Your task to perform on an android device: open app "LiveIn - Share Your Moment" Image 0: 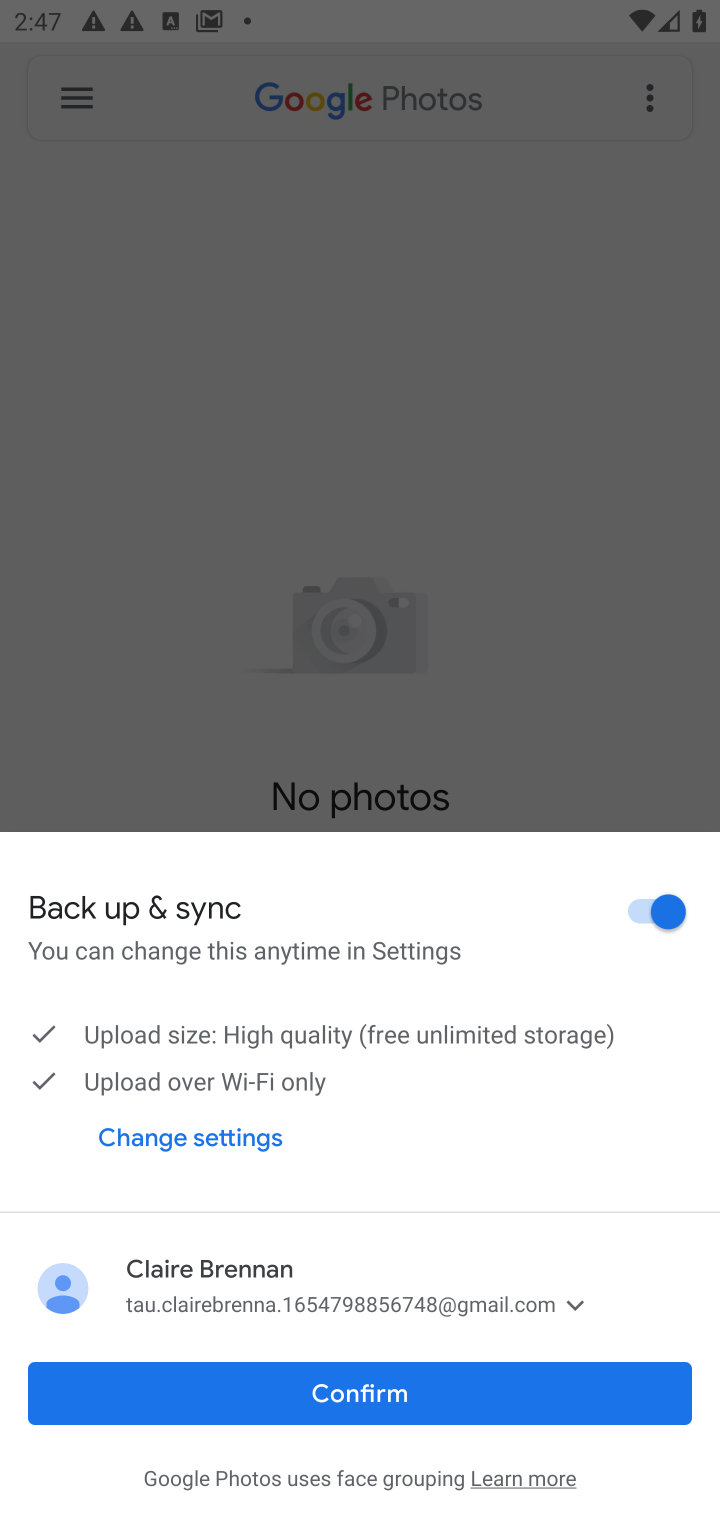
Step 0: press home button
Your task to perform on an android device: open app "LiveIn - Share Your Moment" Image 1: 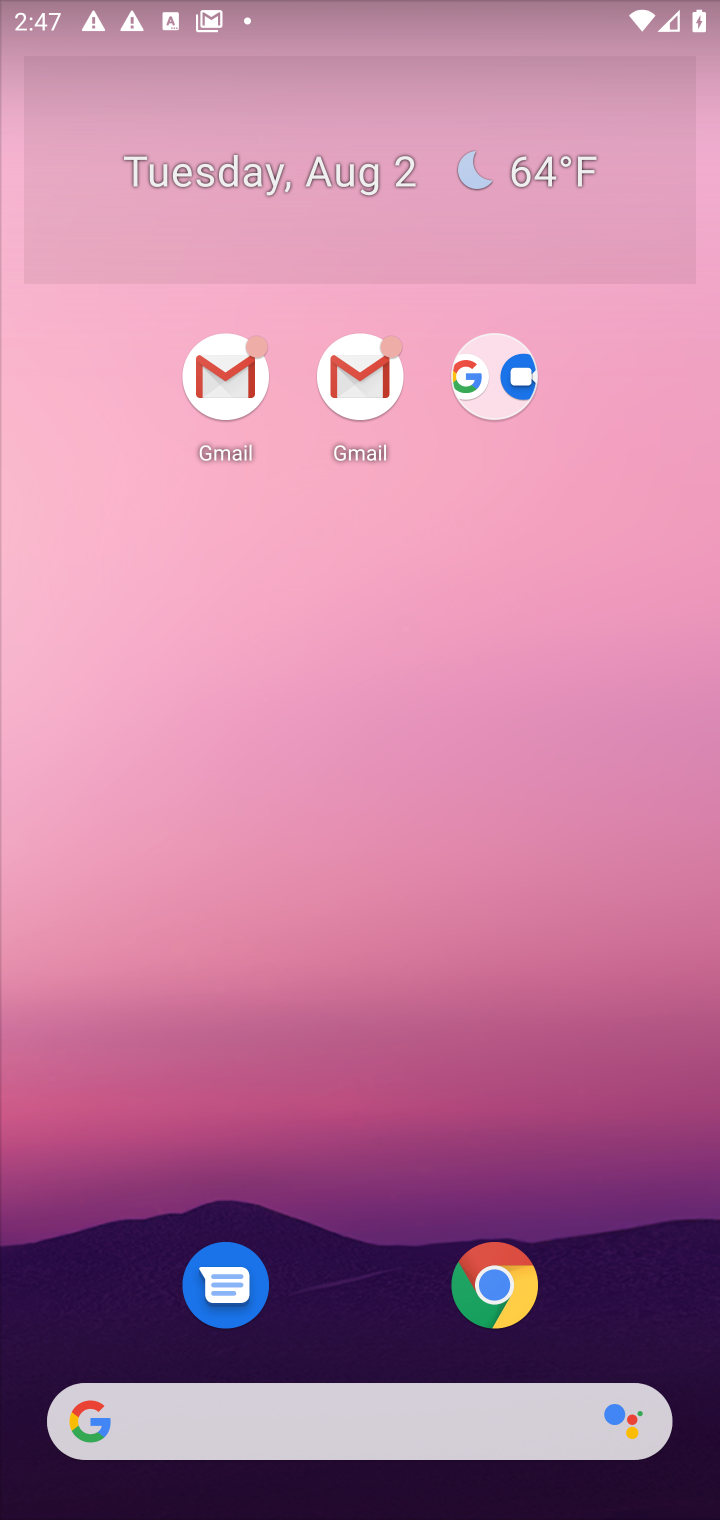
Step 1: drag from (333, 1385) to (341, 112)
Your task to perform on an android device: open app "LiveIn - Share Your Moment" Image 2: 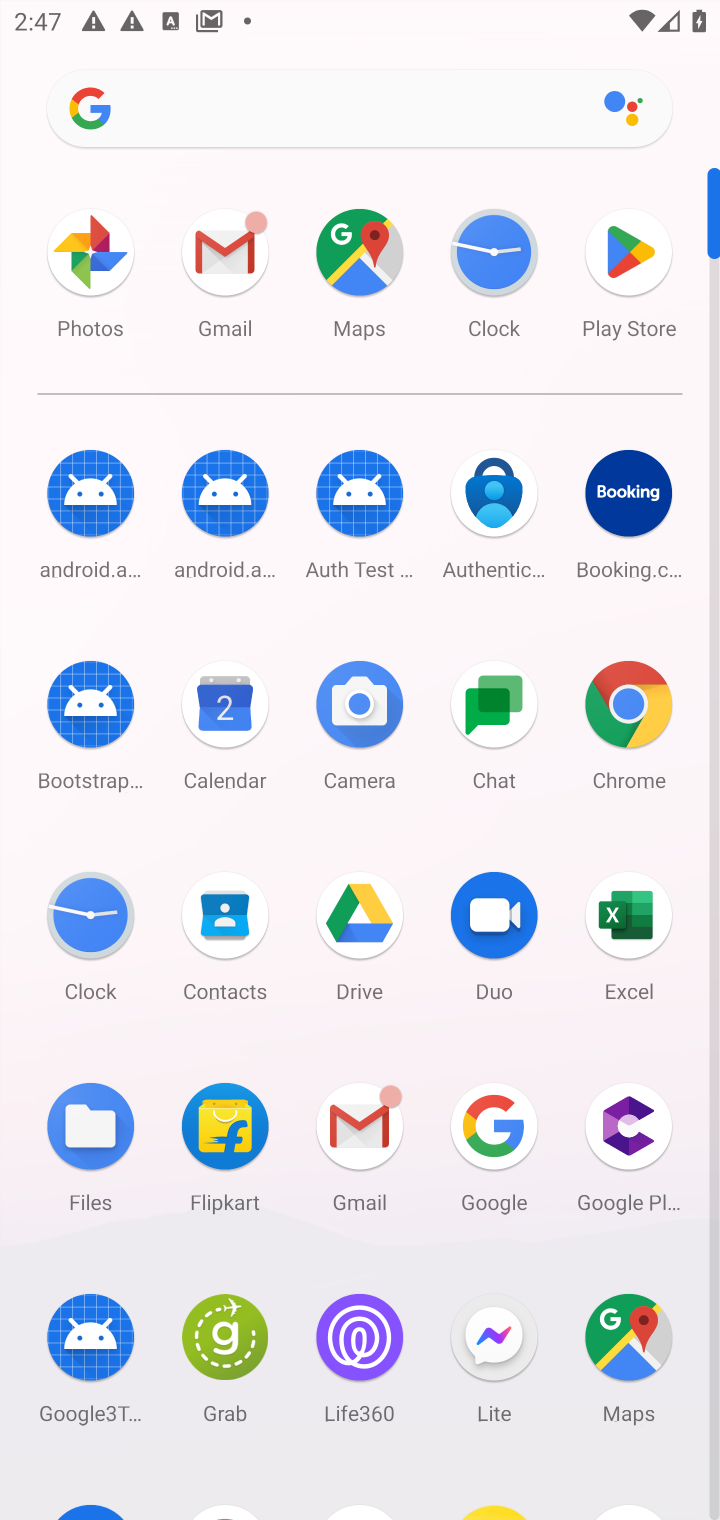
Step 2: click (617, 242)
Your task to perform on an android device: open app "LiveIn - Share Your Moment" Image 3: 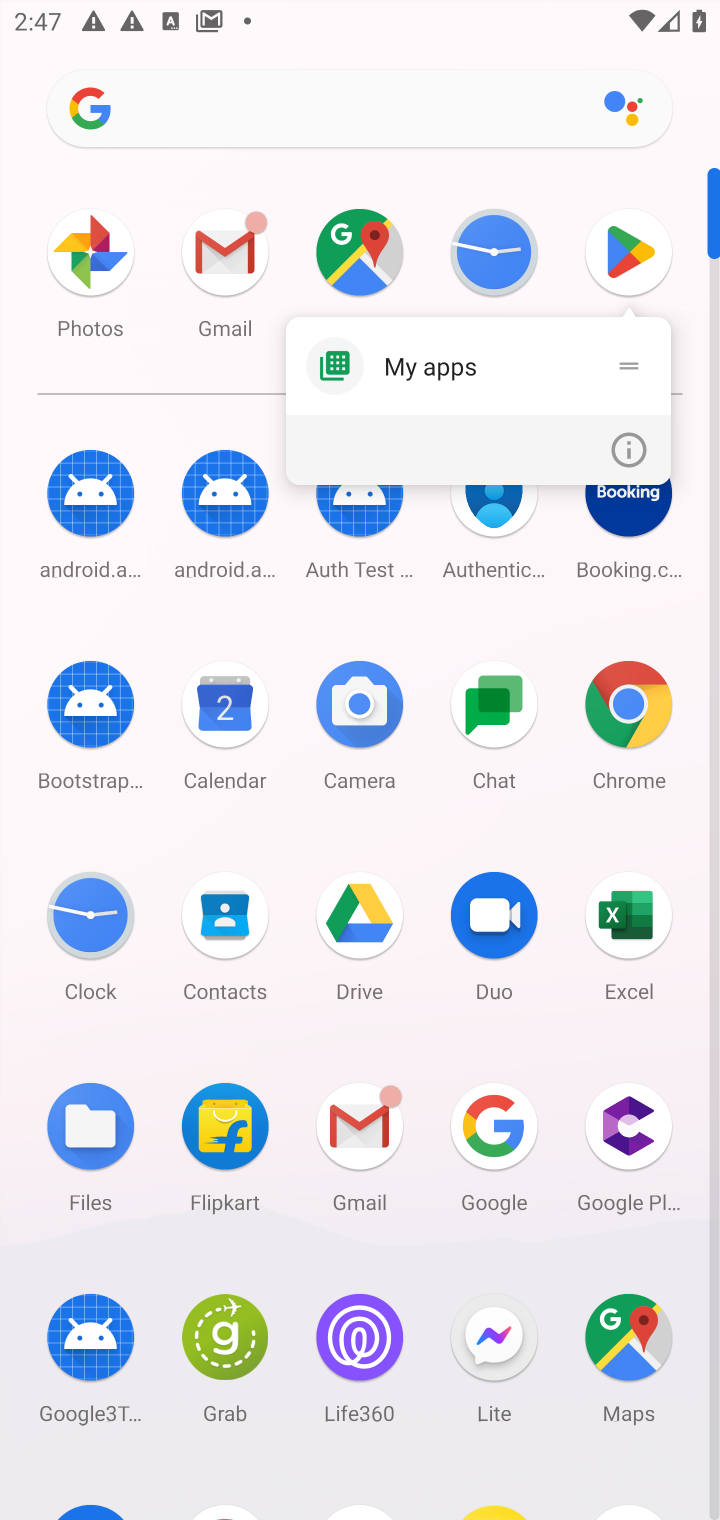
Step 3: click (613, 239)
Your task to perform on an android device: open app "LiveIn - Share Your Moment" Image 4: 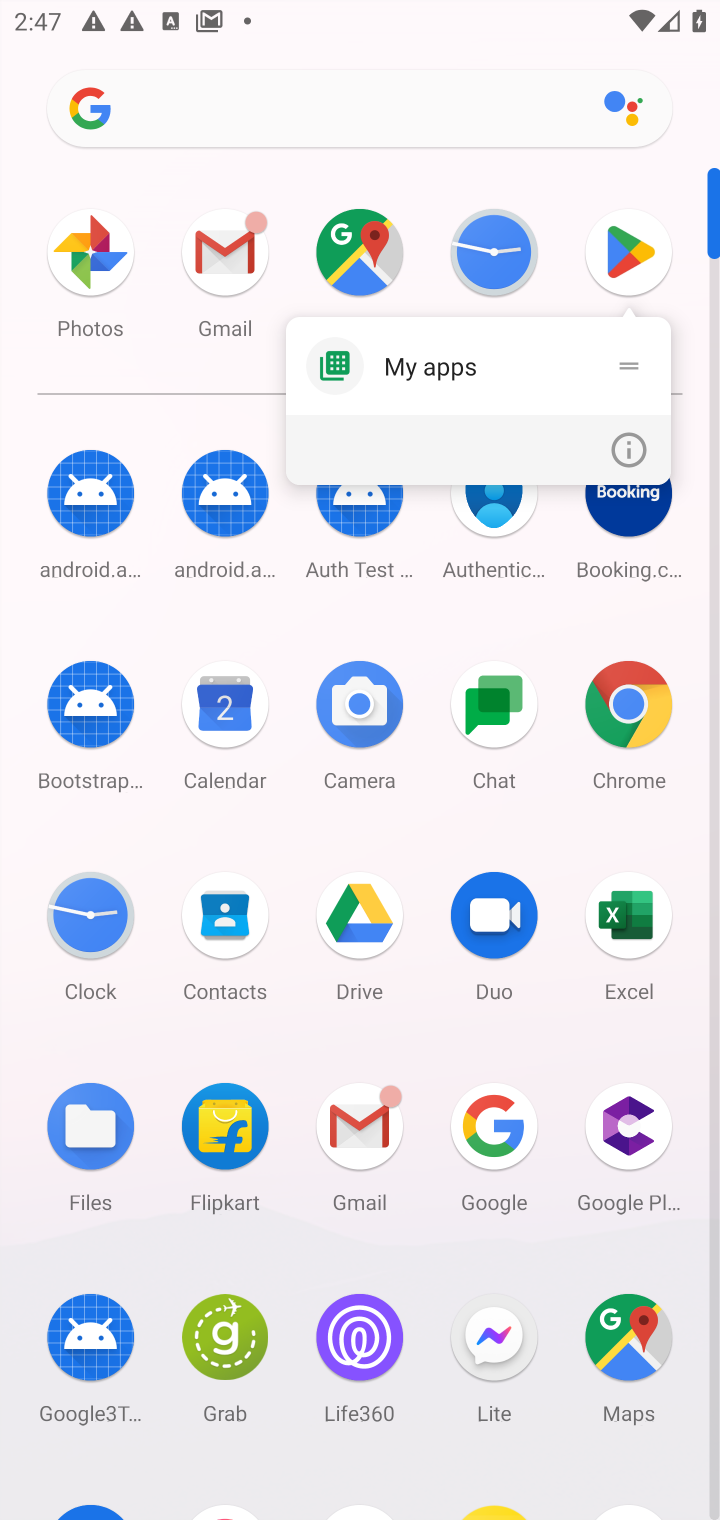
Step 4: drag from (275, 938) to (298, 505)
Your task to perform on an android device: open app "LiveIn - Share Your Moment" Image 5: 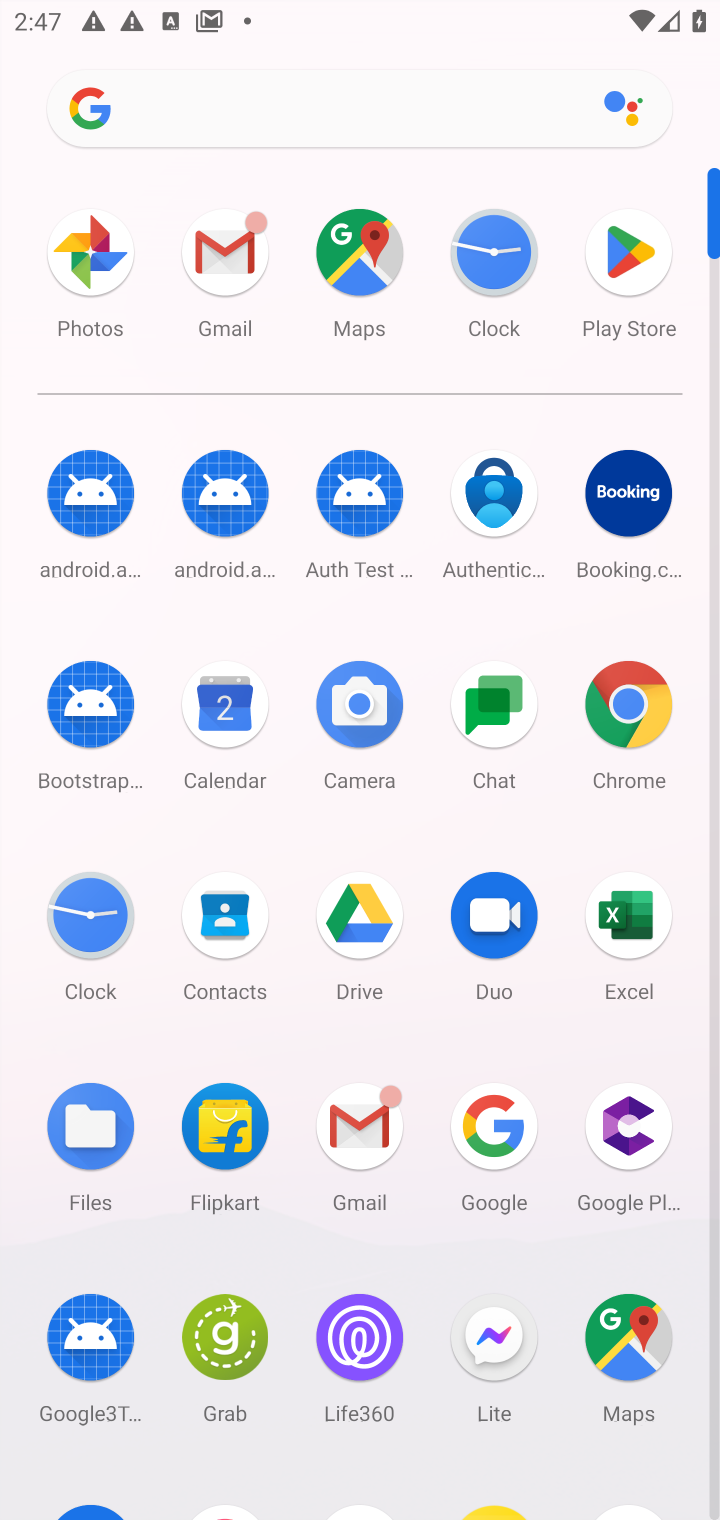
Step 5: drag from (278, 1229) to (309, 530)
Your task to perform on an android device: open app "LiveIn - Share Your Moment" Image 6: 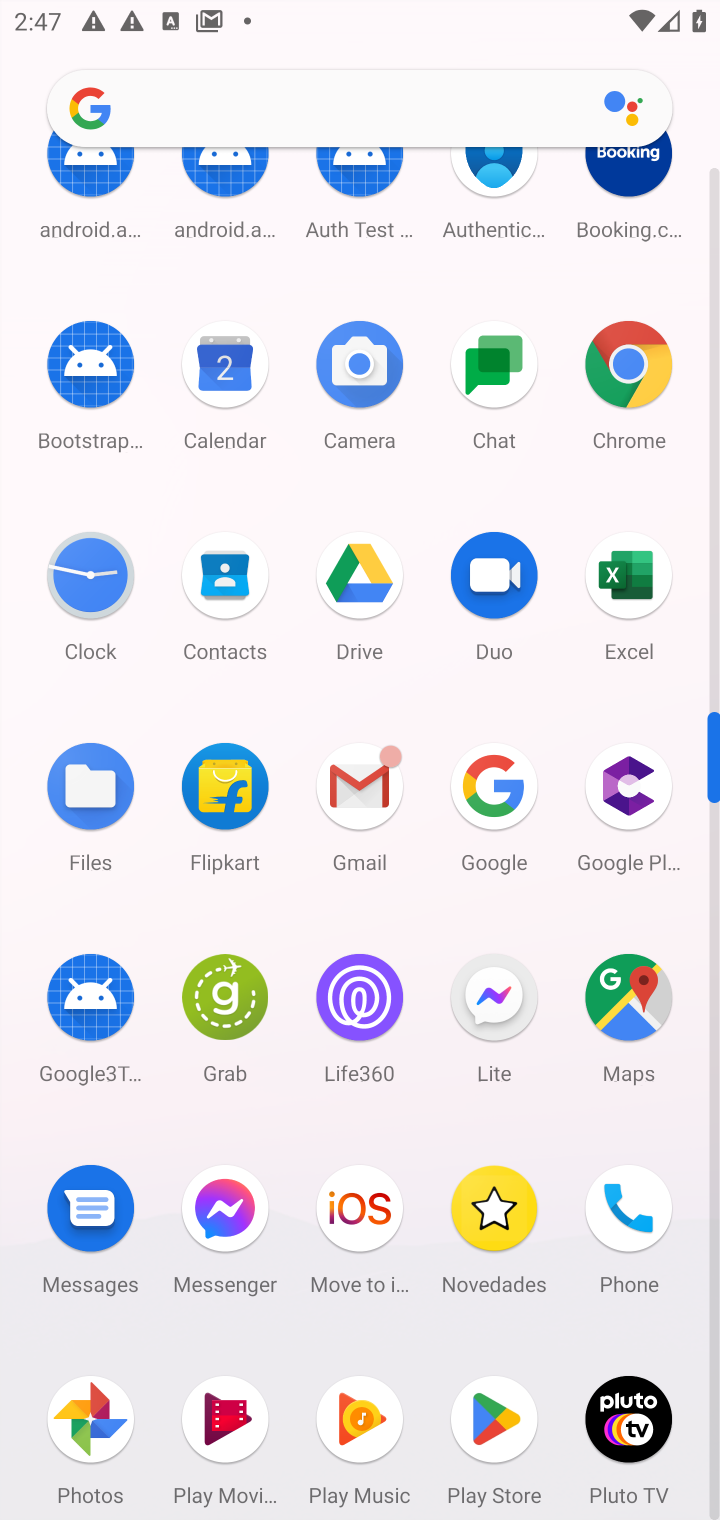
Step 6: click (497, 1405)
Your task to perform on an android device: open app "LiveIn - Share Your Moment" Image 7: 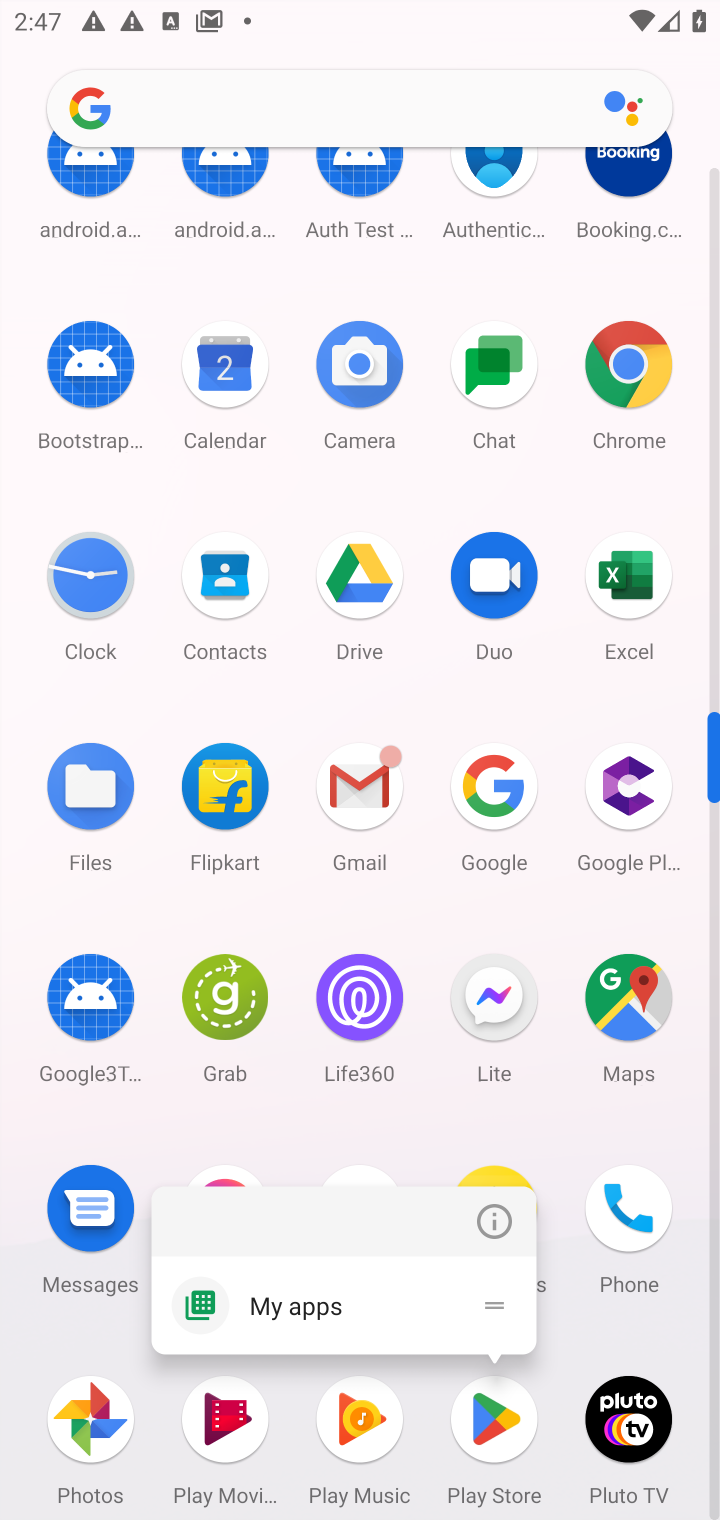
Step 7: click (481, 1416)
Your task to perform on an android device: open app "LiveIn - Share Your Moment" Image 8: 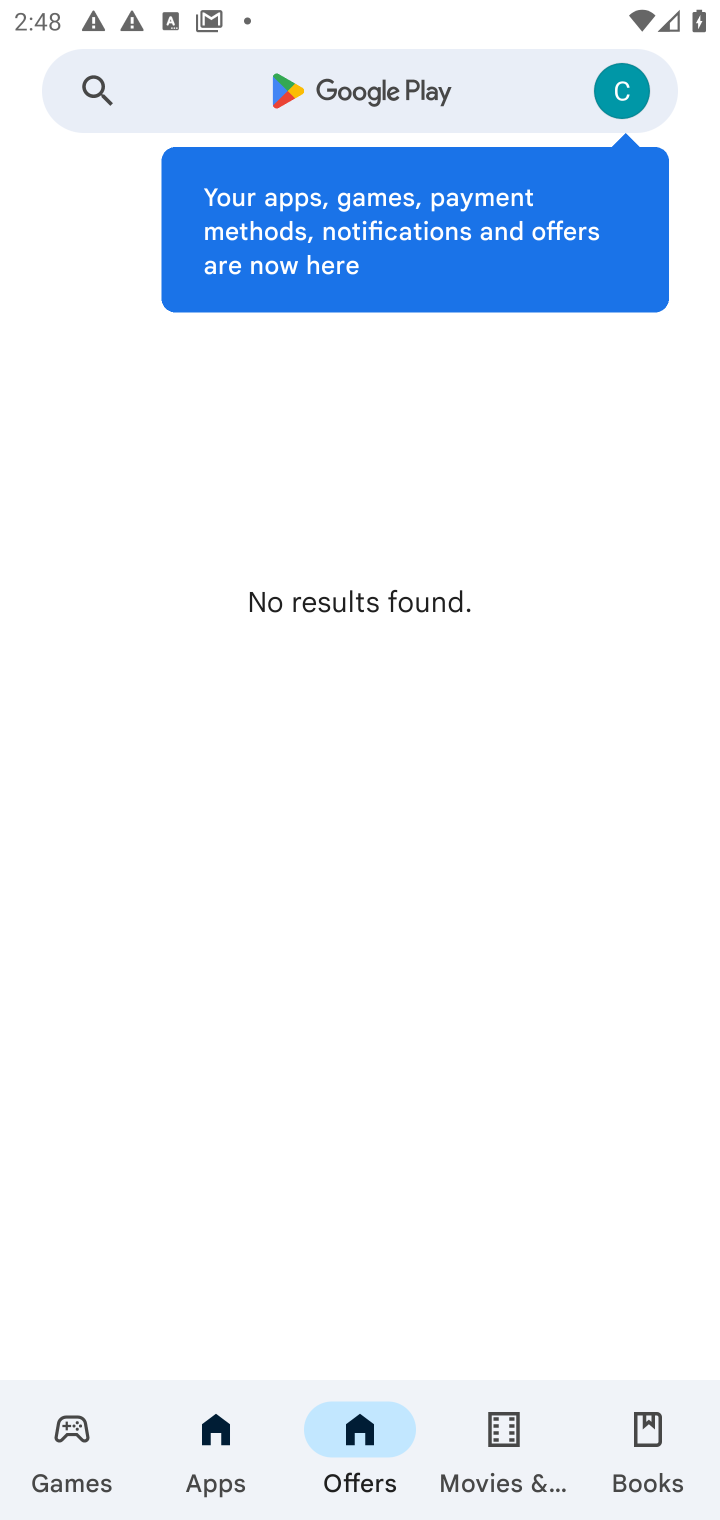
Step 8: click (471, 69)
Your task to perform on an android device: open app "LiveIn - Share Your Moment" Image 9: 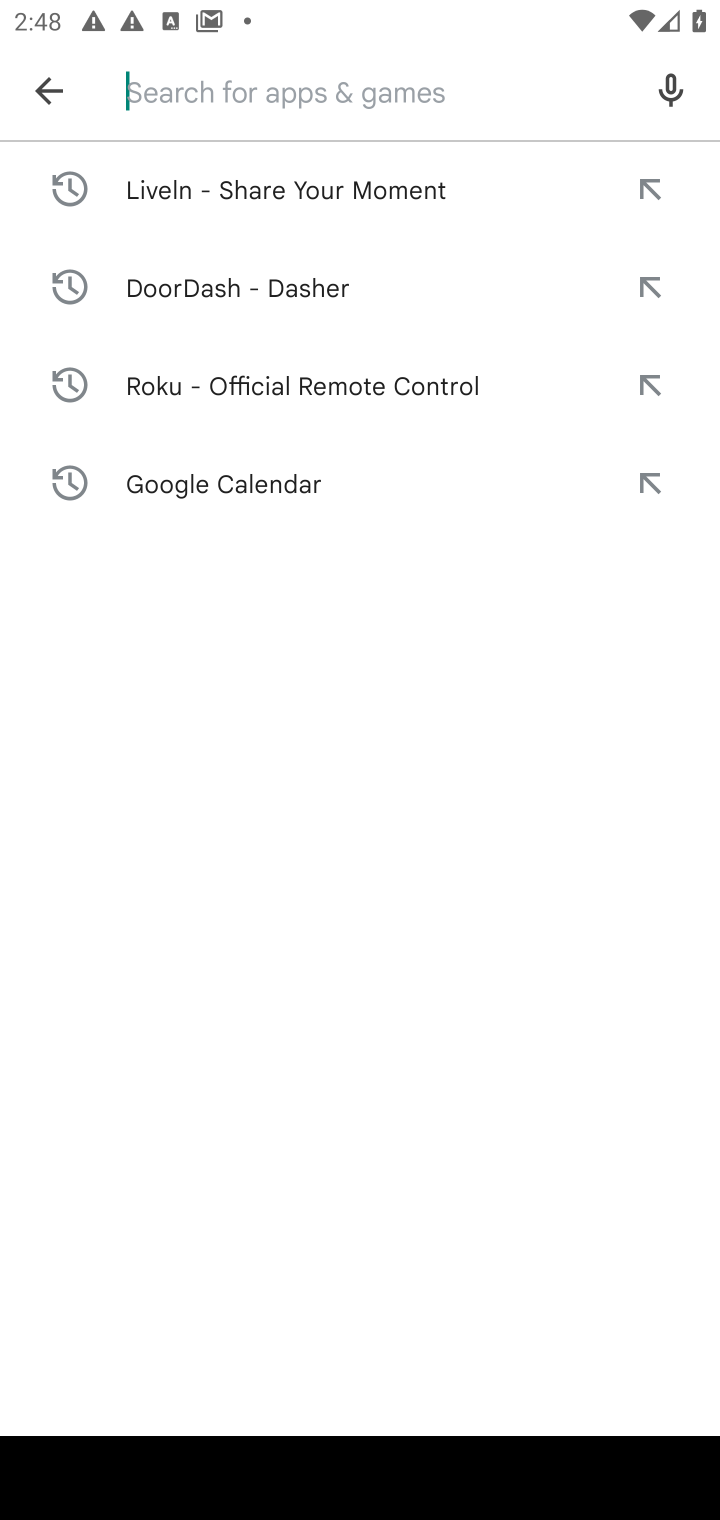
Step 9: click (376, 176)
Your task to perform on an android device: open app "LiveIn - Share Your Moment" Image 10: 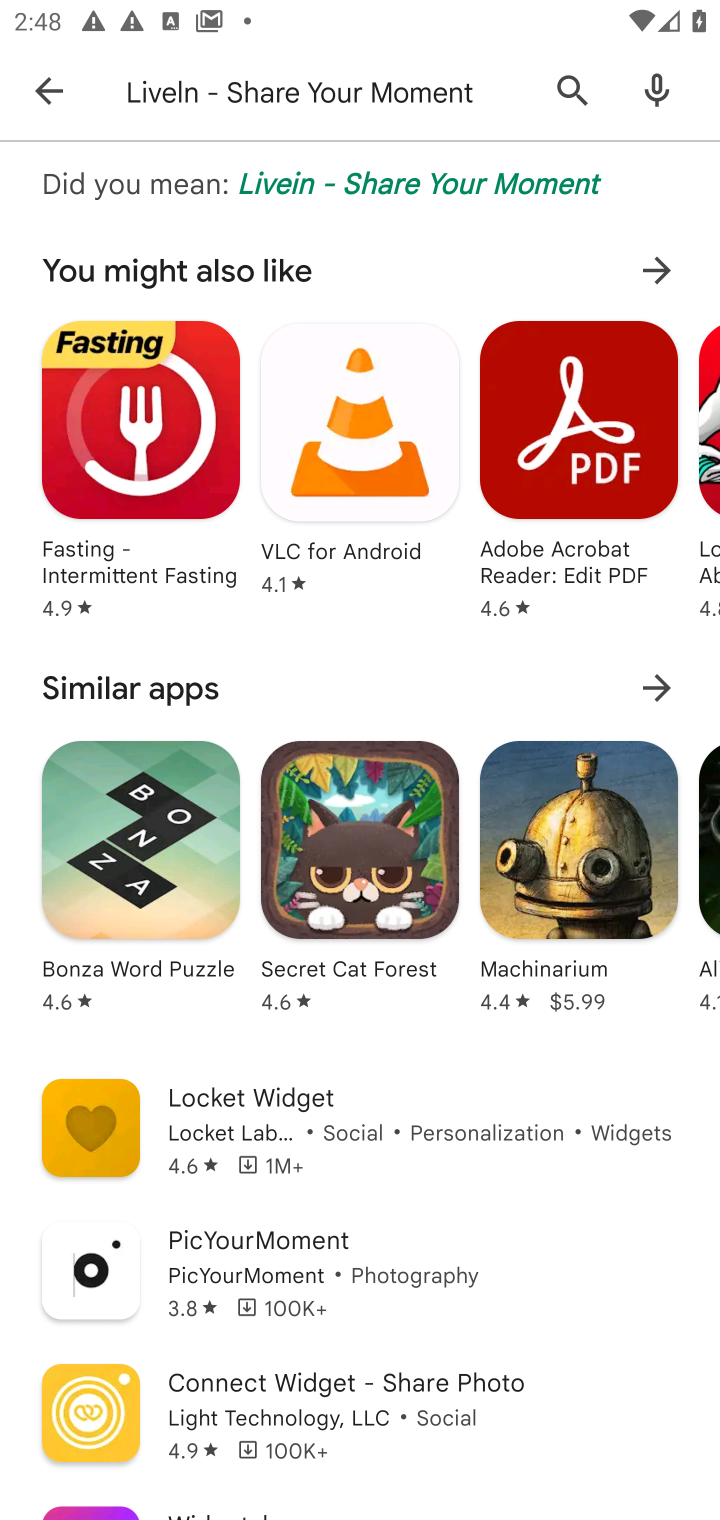
Step 10: click (510, 184)
Your task to perform on an android device: open app "LiveIn - Share Your Moment" Image 11: 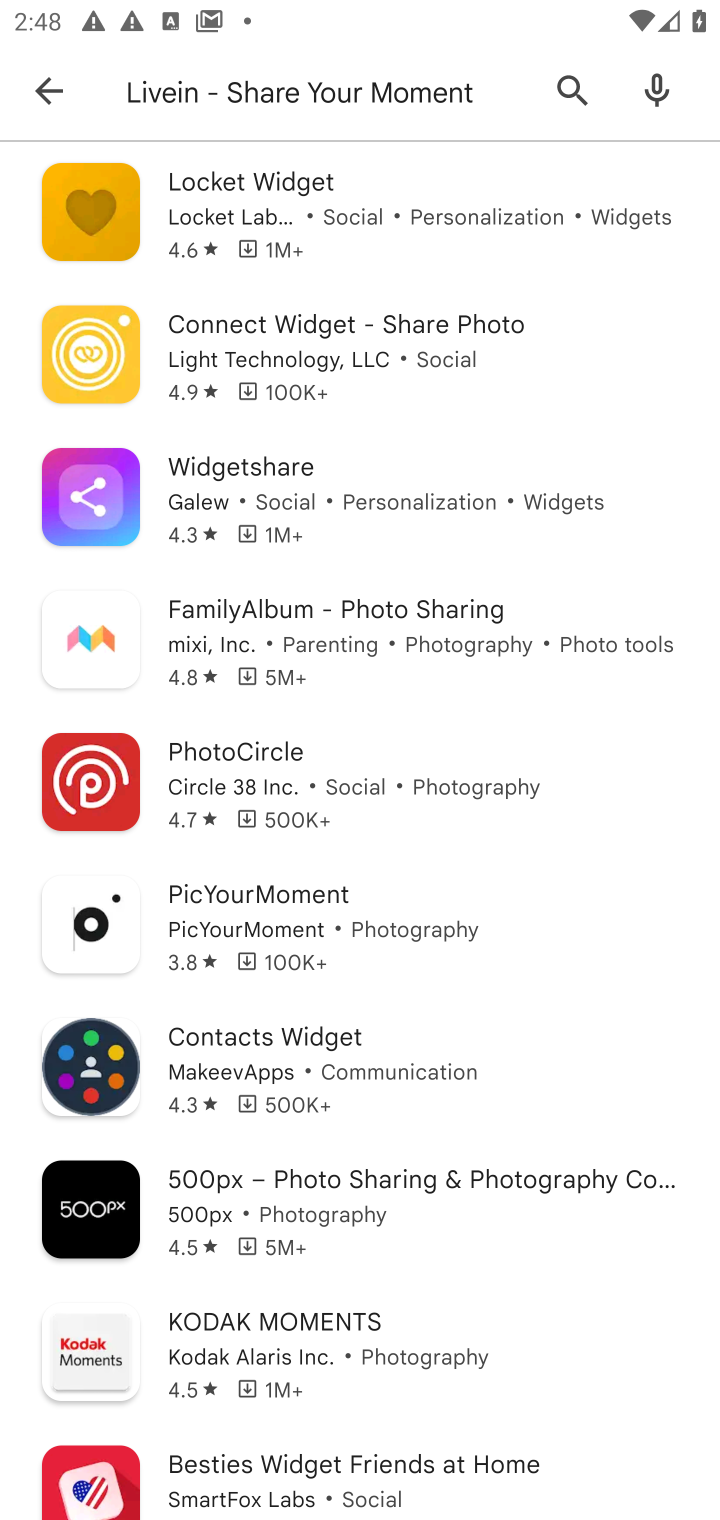
Step 11: task complete